Your task to perform on an android device: See recent photos Image 0: 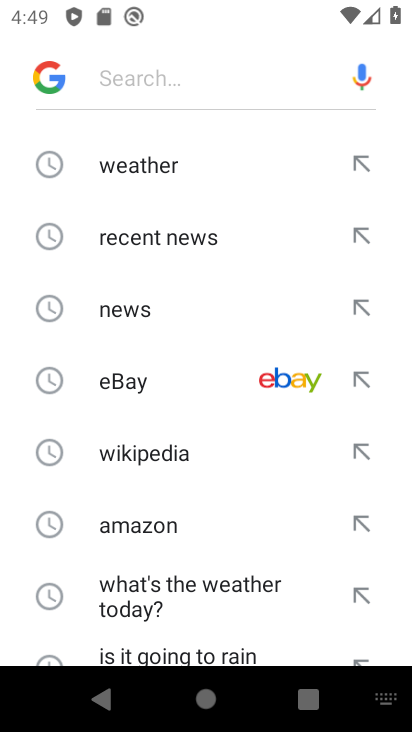
Step 0: press home button
Your task to perform on an android device: See recent photos Image 1: 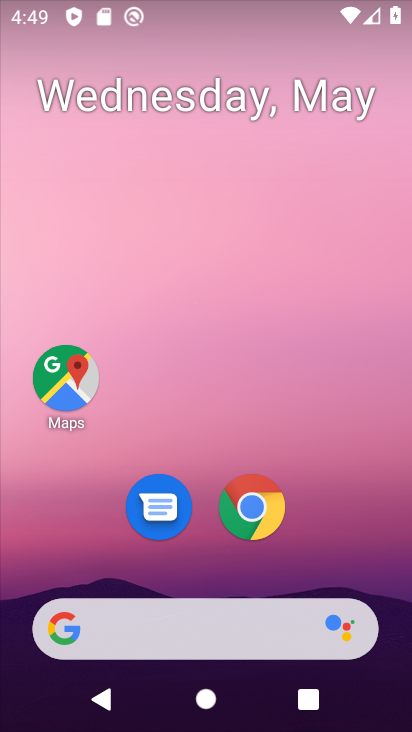
Step 1: drag from (327, 531) to (224, 79)
Your task to perform on an android device: See recent photos Image 2: 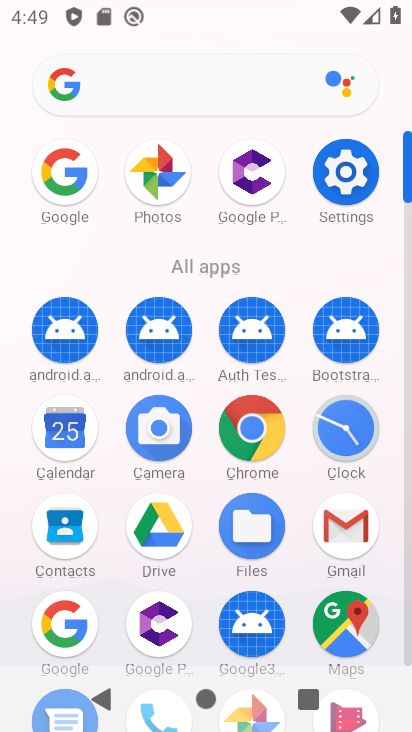
Step 2: click (158, 172)
Your task to perform on an android device: See recent photos Image 3: 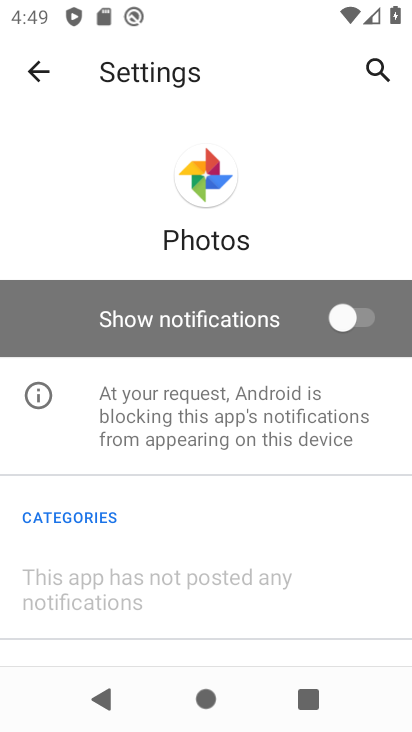
Step 3: press back button
Your task to perform on an android device: See recent photos Image 4: 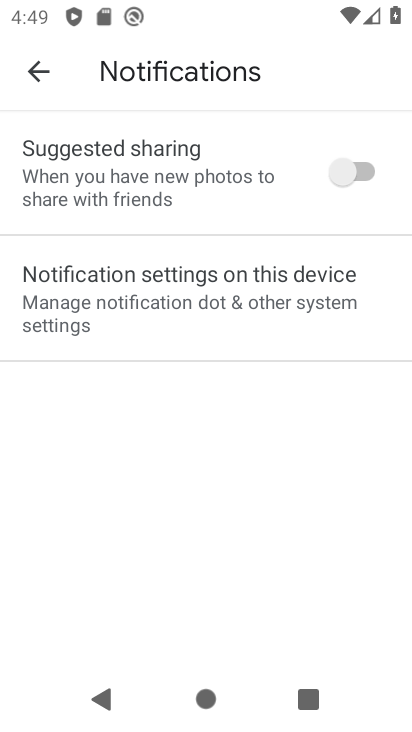
Step 4: press back button
Your task to perform on an android device: See recent photos Image 5: 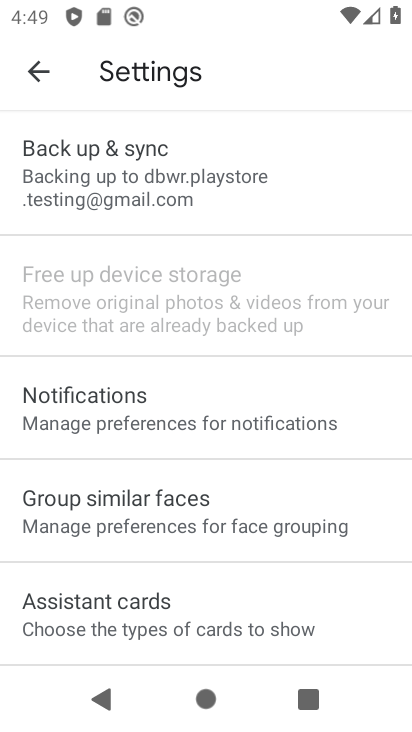
Step 5: press back button
Your task to perform on an android device: See recent photos Image 6: 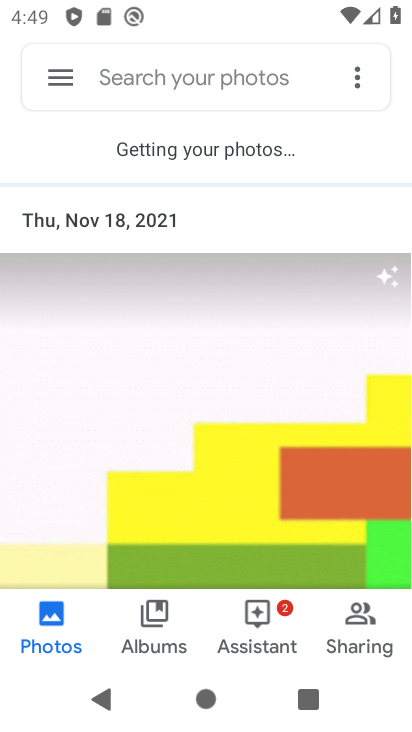
Step 6: click (57, 607)
Your task to perform on an android device: See recent photos Image 7: 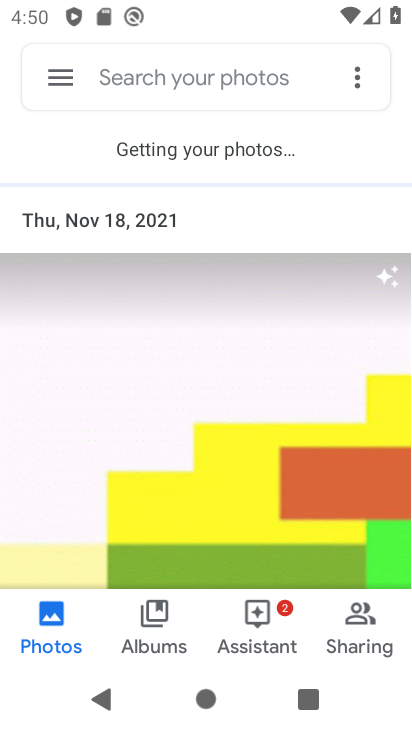
Step 7: task complete